Your task to perform on an android device: toggle airplane mode Image 0: 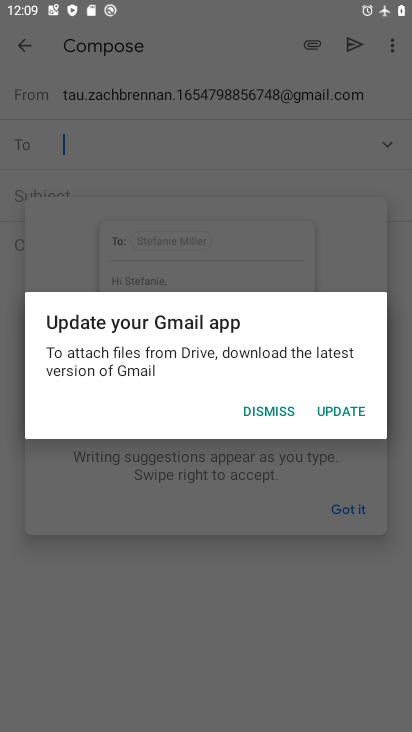
Step 0: press home button
Your task to perform on an android device: toggle airplane mode Image 1: 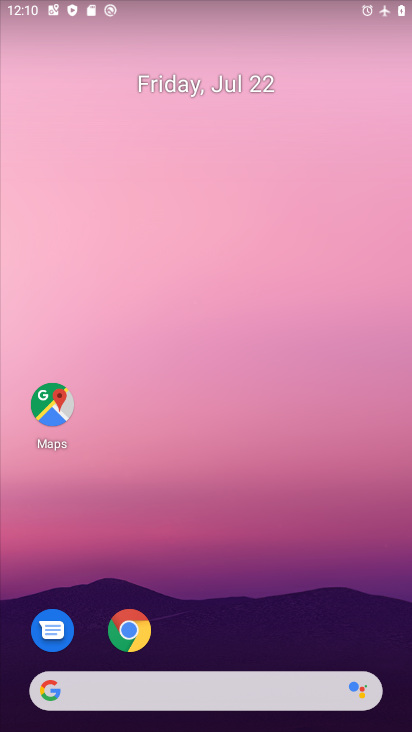
Step 1: drag from (293, 575) to (194, 97)
Your task to perform on an android device: toggle airplane mode Image 2: 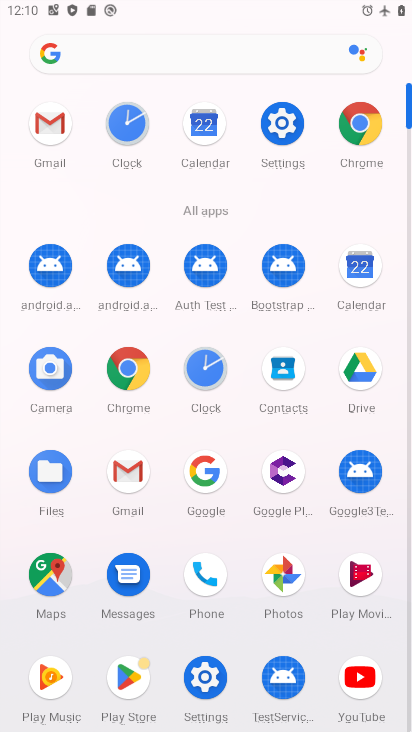
Step 2: click (284, 143)
Your task to perform on an android device: toggle airplane mode Image 3: 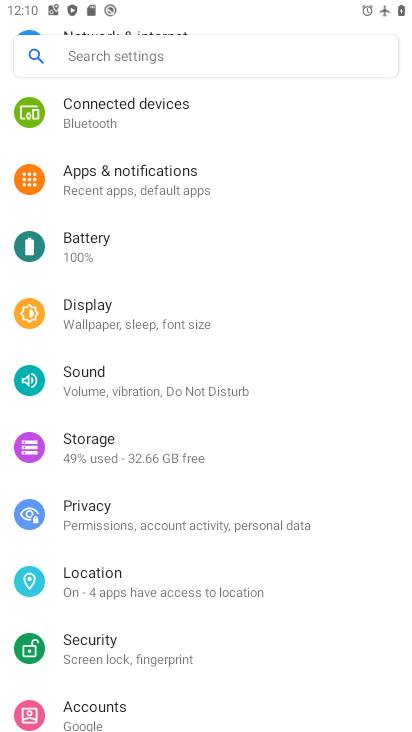
Step 3: drag from (166, 186) to (174, 413)
Your task to perform on an android device: toggle airplane mode Image 4: 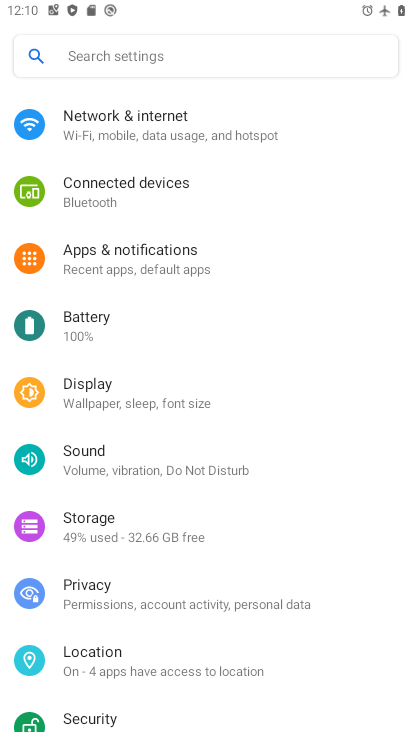
Step 4: click (102, 115)
Your task to perform on an android device: toggle airplane mode Image 5: 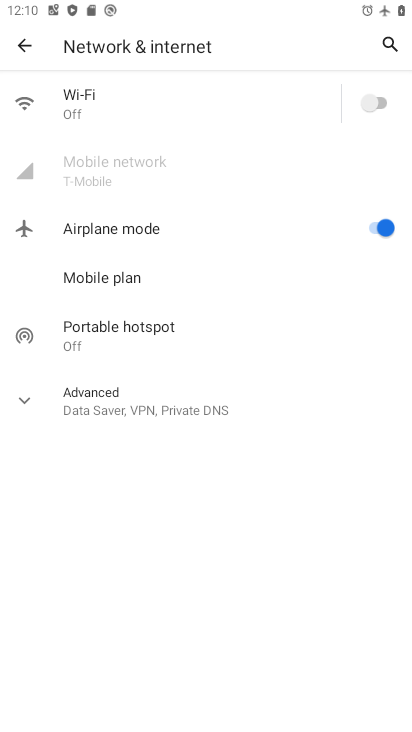
Step 5: click (385, 225)
Your task to perform on an android device: toggle airplane mode Image 6: 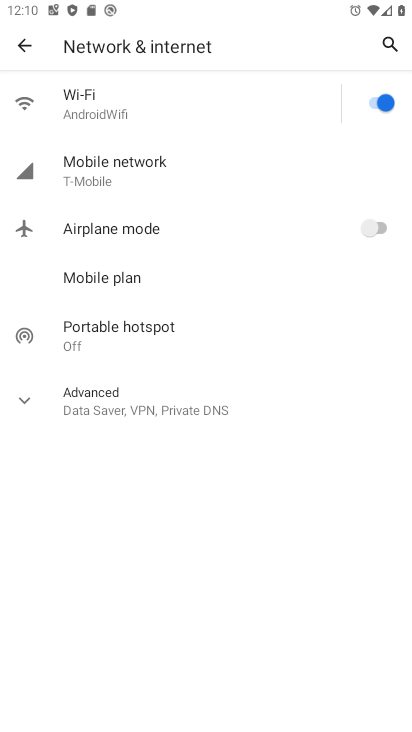
Step 6: task complete